Your task to perform on an android device: Go to display settings Image 0: 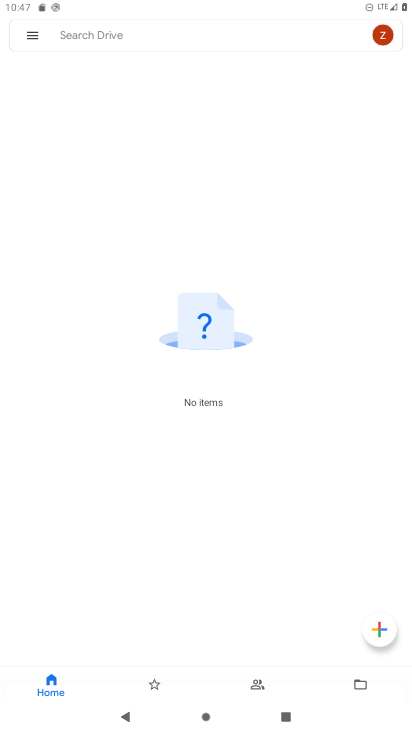
Step 0: press home button
Your task to perform on an android device: Go to display settings Image 1: 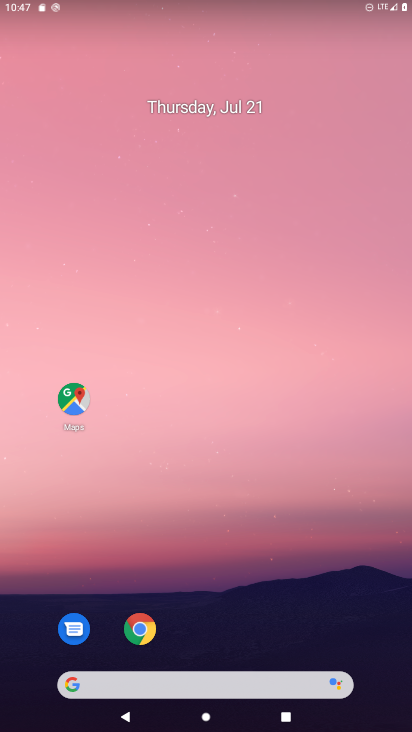
Step 1: drag from (269, 626) to (257, 153)
Your task to perform on an android device: Go to display settings Image 2: 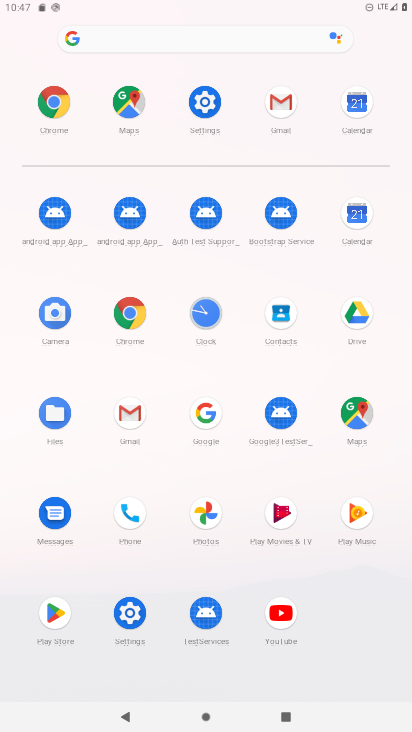
Step 2: click (213, 103)
Your task to perform on an android device: Go to display settings Image 3: 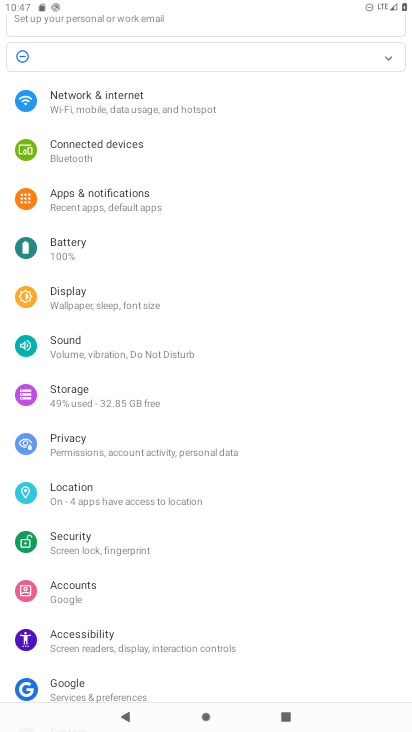
Step 3: click (78, 287)
Your task to perform on an android device: Go to display settings Image 4: 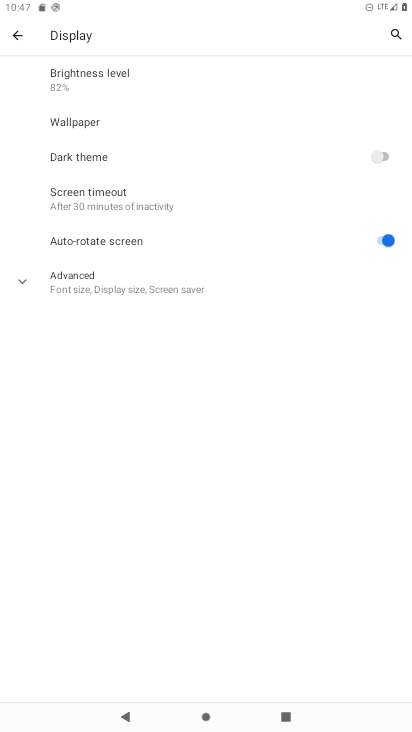
Step 4: task complete